Your task to perform on an android device: toggle notifications settings in the gmail app Image 0: 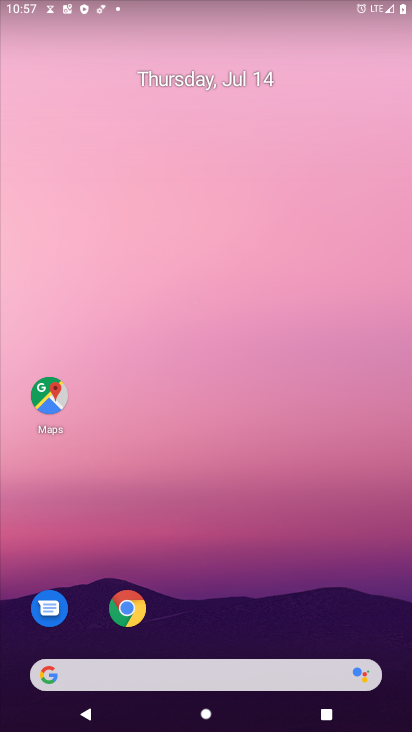
Step 0: drag from (225, 674) to (220, 114)
Your task to perform on an android device: toggle notifications settings in the gmail app Image 1: 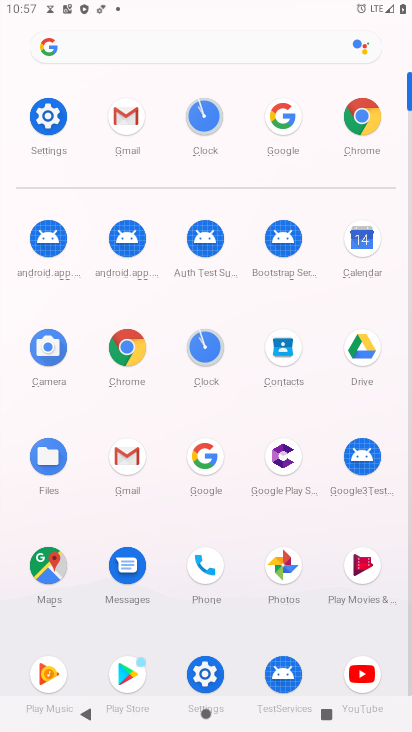
Step 1: click (128, 459)
Your task to perform on an android device: toggle notifications settings in the gmail app Image 2: 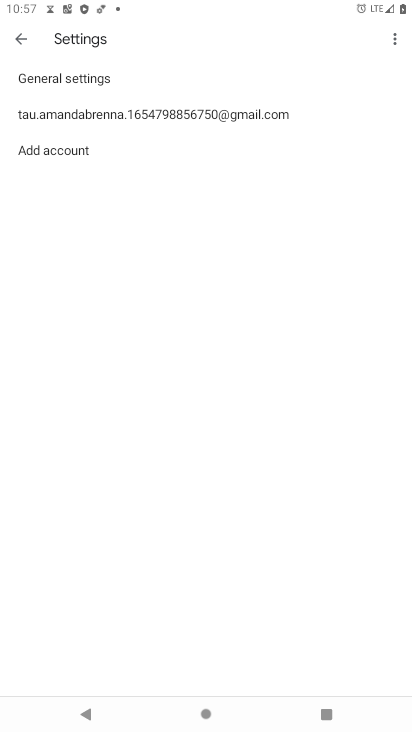
Step 2: click (87, 113)
Your task to perform on an android device: toggle notifications settings in the gmail app Image 3: 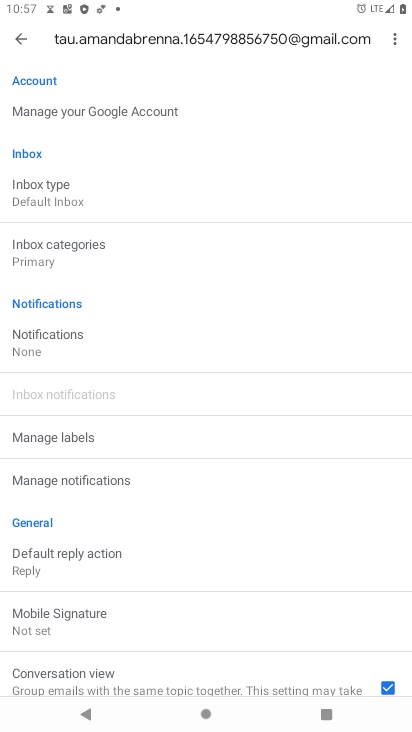
Step 3: click (51, 338)
Your task to perform on an android device: toggle notifications settings in the gmail app Image 4: 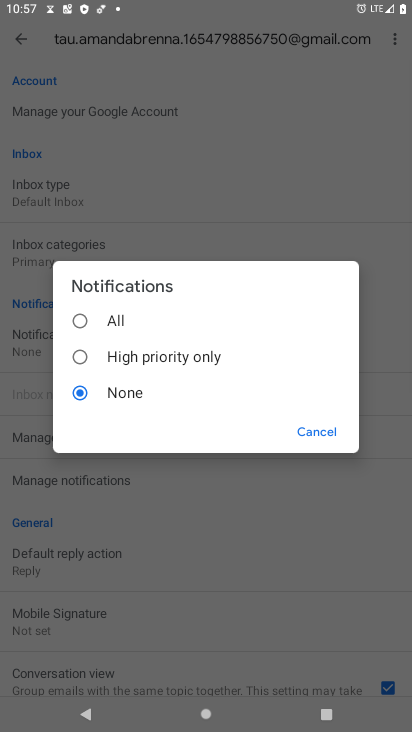
Step 4: click (81, 323)
Your task to perform on an android device: toggle notifications settings in the gmail app Image 5: 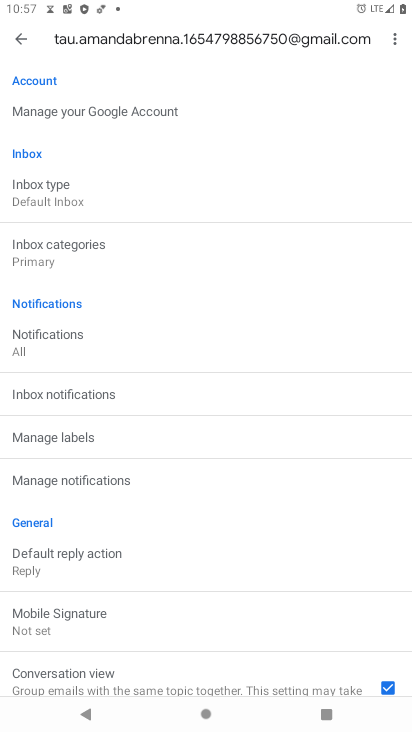
Step 5: task complete